Your task to perform on an android device: Find coffee shops on Maps Image 0: 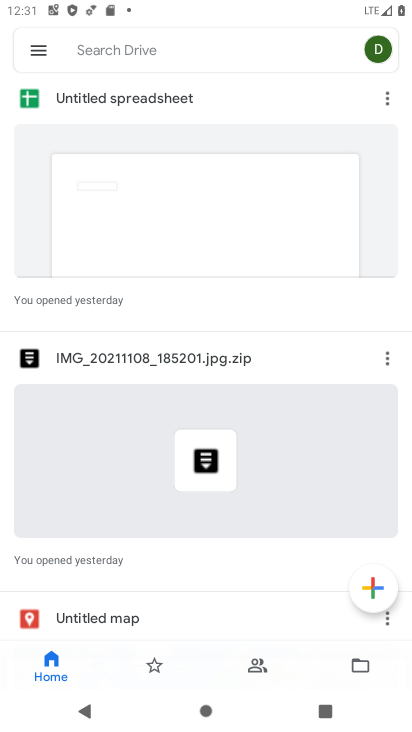
Step 0: press home button
Your task to perform on an android device: Find coffee shops on Maps Image 1: 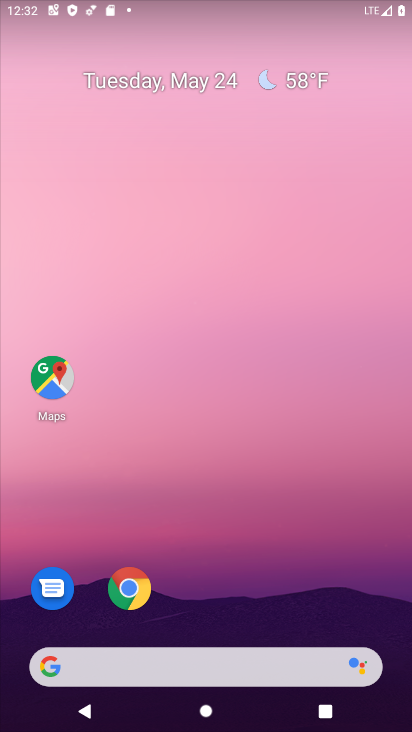
Step 1: click (62, 389)
Your task to perform on an android device: Find coffee shops on Maps Image 2: 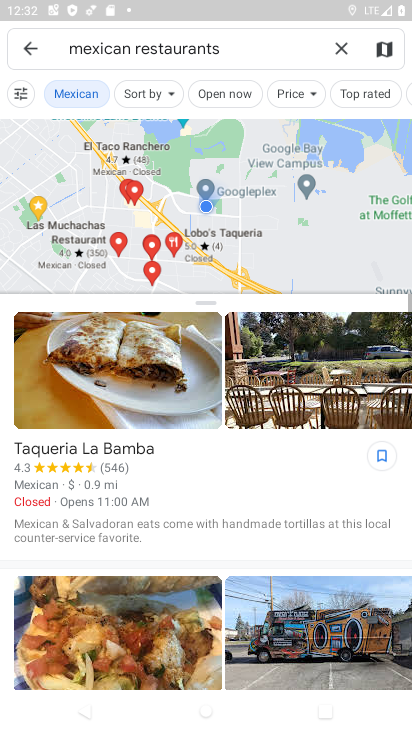
Step 2: click (342, 53)
Your task to perform on an android device: Find coffee shops on Maps Image 3: 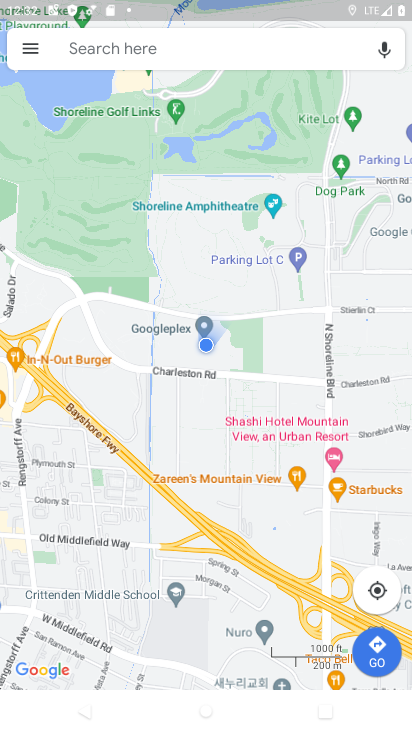
Step 3: click (219, 52)
Your task to perform on an android device: Find coffee shops on Maps Image 4: 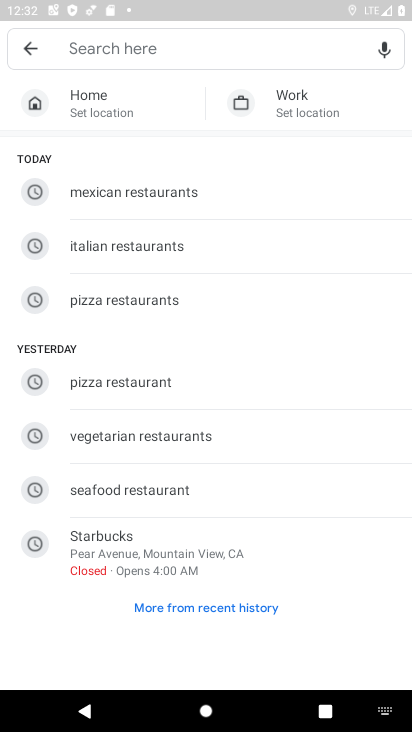
Step 4: type "coffee shops"
Your task to perform on an android device: Find coffee shops on Maps Image 5: 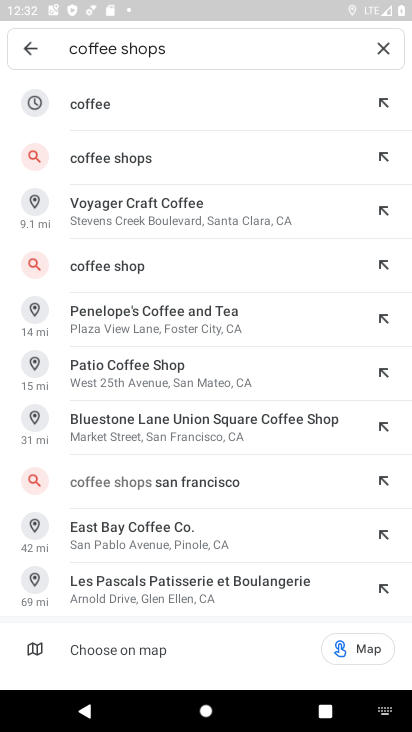
Step 5: click (89, 172)
Your task to perform on an android device: Find coffee shops on Maps Image 6: 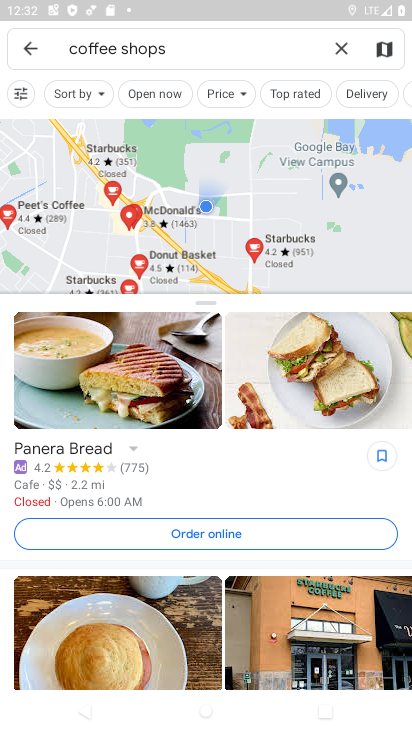
Step 6: task complete